Your task to perform on an android device: Search for vegetarian restaurants on Maps Image 0: 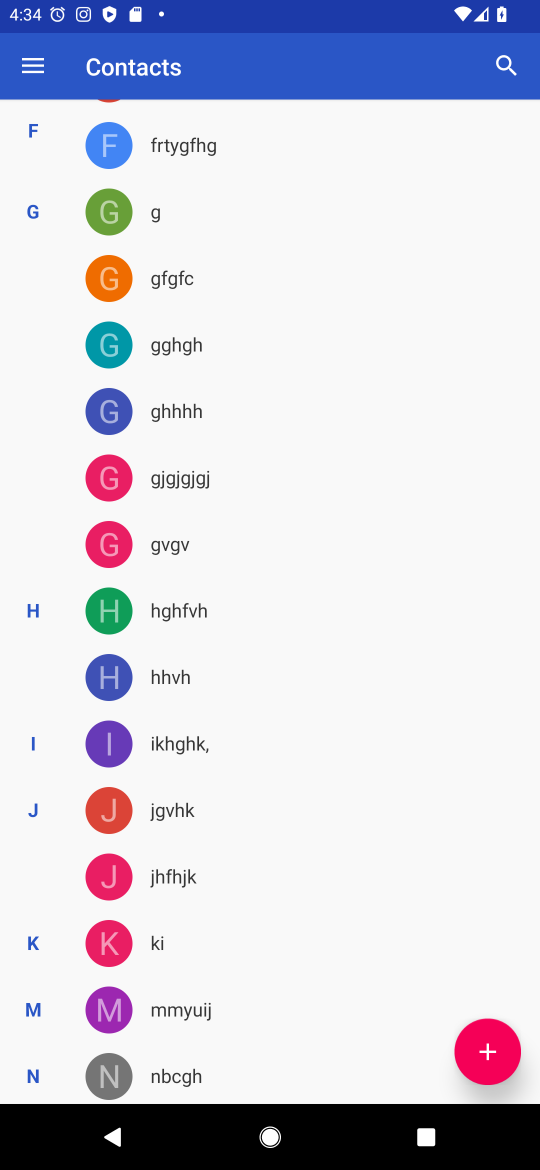
Step 0: press home button
Your task to perform on an android device: Search for vegetarian restaurants on Maps Image 1: 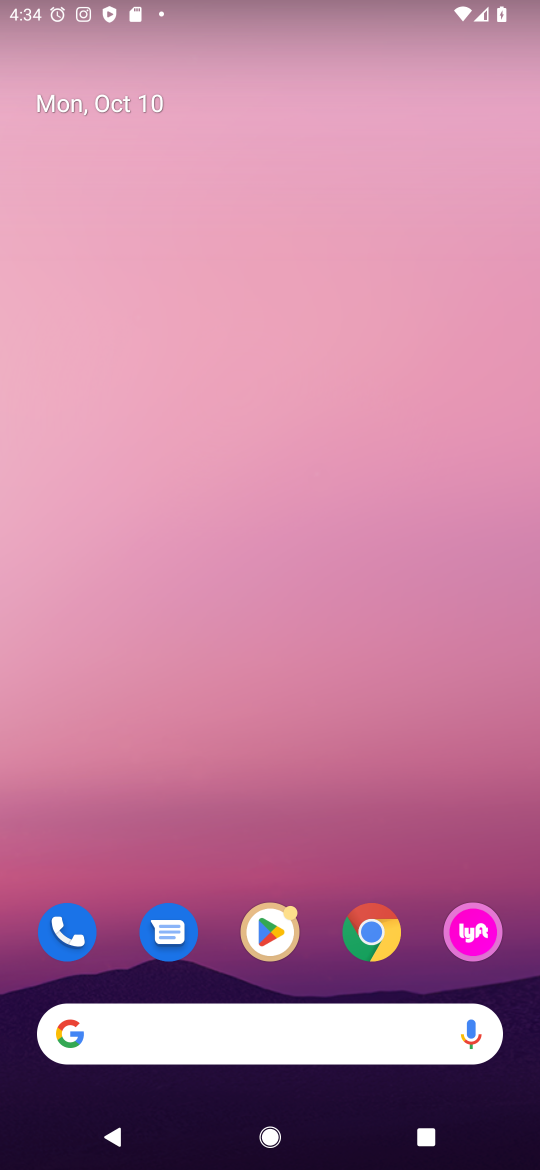
Step 1: drag from (498, 779) to (456, 102)
Your task to perform on an android device: Search for vegetarian restaurants on Maps Image 2: 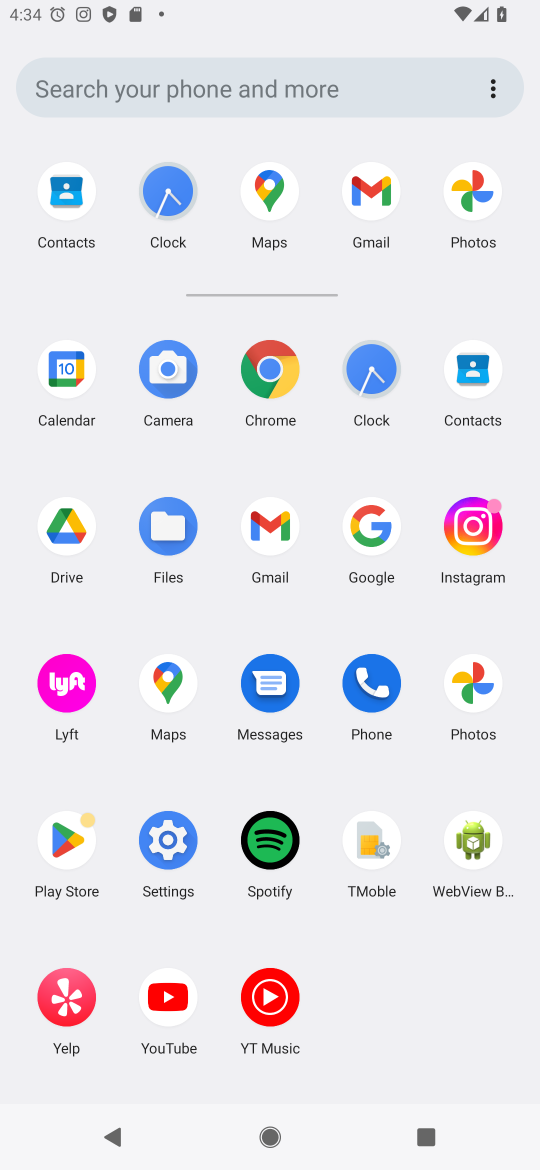
Step 2: click (250, 204)
Your task to perform on an android device: Search for vegetarian restaurants on Maps Image 3: 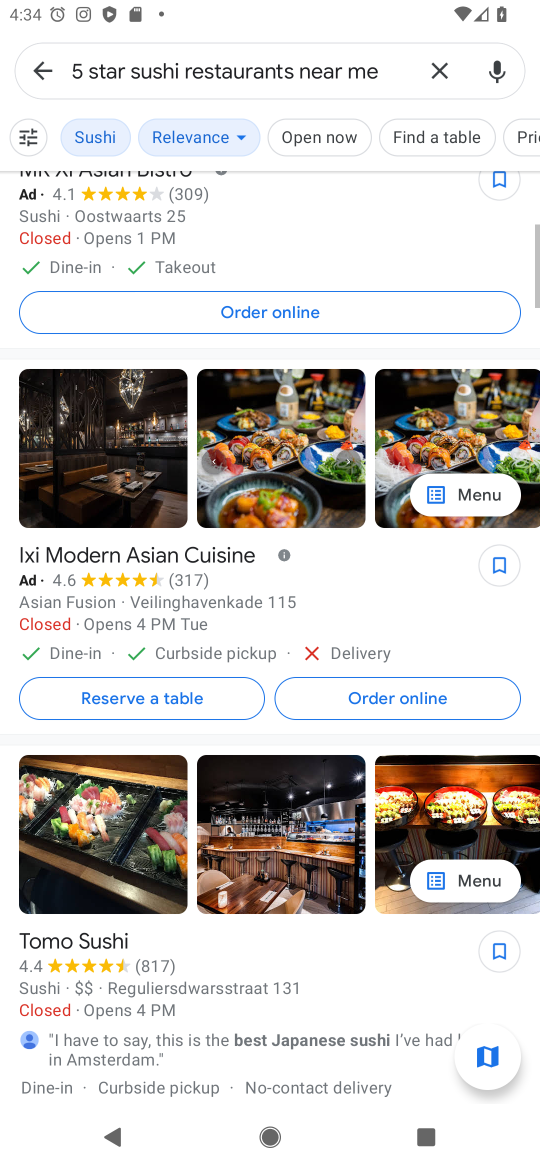
Step 3: click (437, 73)
Your task to perform on an android device: Search for vegetarian restaurants on Maps Image 4: 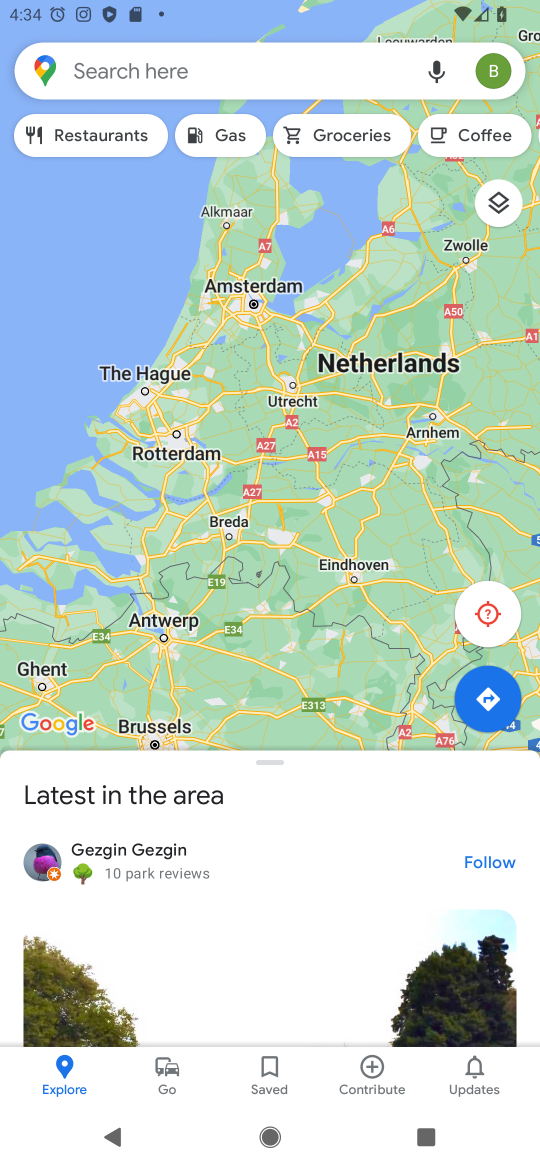
Step 4: click (298, 78)
Your task to perform on an android device: Search for vegetarian restaurants on Maps Image 5: 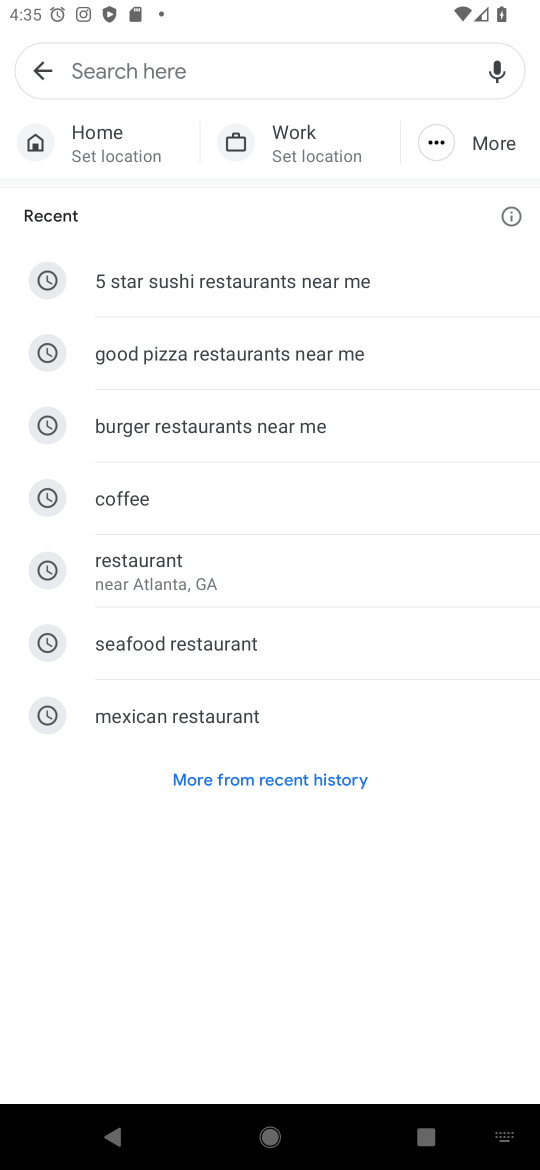
Step 5: type "vegetarian restaurants"
Your task to perform on an android device: Search for vegetarian restaurants on Maps Image 6: 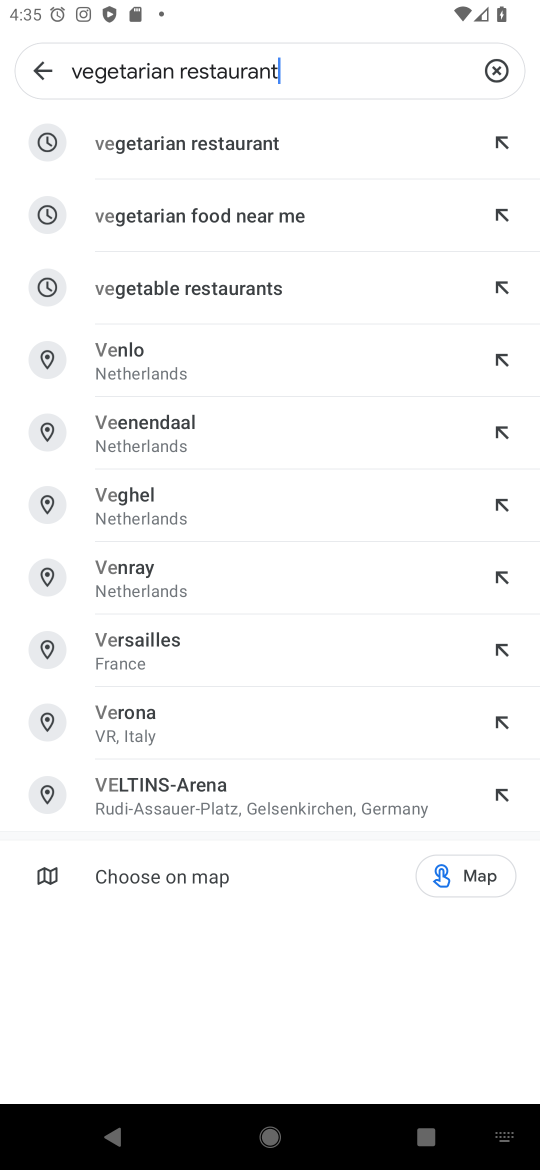
Step 6: press enter
Your task to perform on an android device: Search for vegetarian restaurants on Maps Image 7: 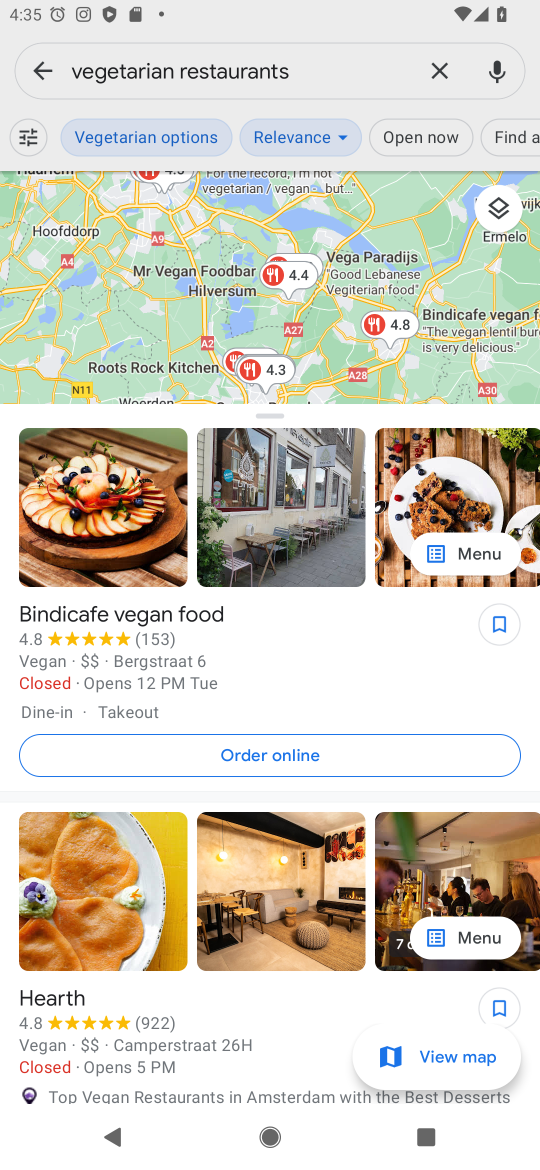
Step 7: task complete